Your task to perform on an android device: visit the assistant section in the google photos Image 0: 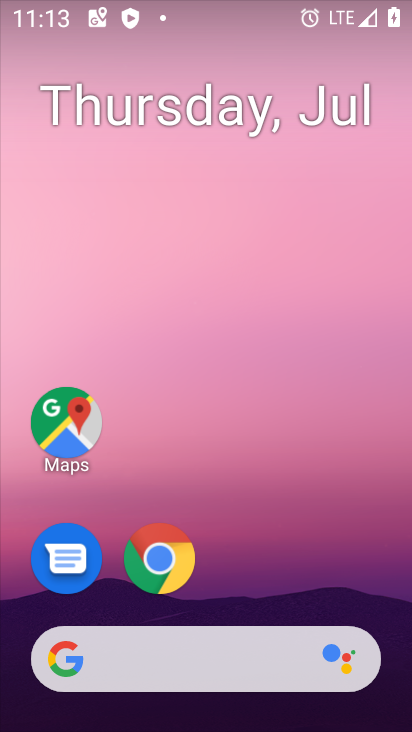
Step 0: drag from (345, 552) to (365, 76)
Your task to perform on an android device: visit the assistant section in the google photos Image 1: 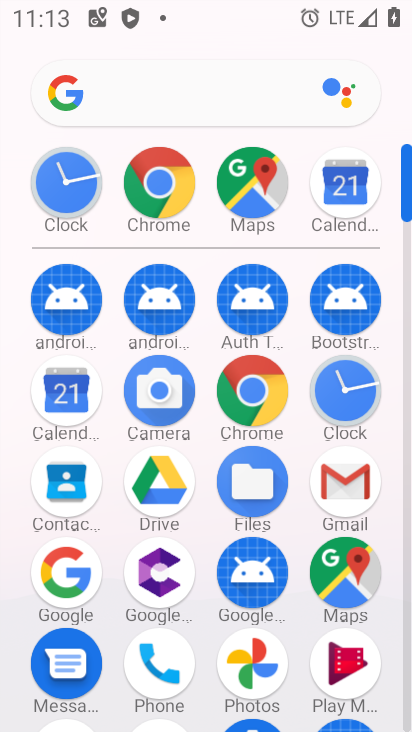
Step 1: click (250, 673)
Your task to perform on an android device: visit the assistant section in the google photos Image 2: 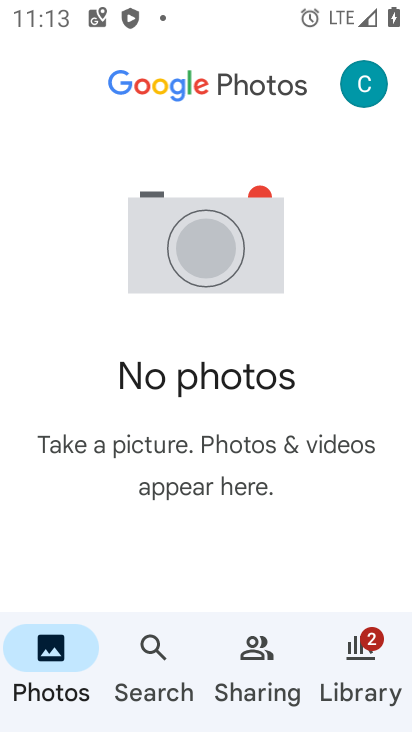
Step 2: click (364, 666)
Your task to perform on an android device: visit the assistant section in the google photos Image 3: 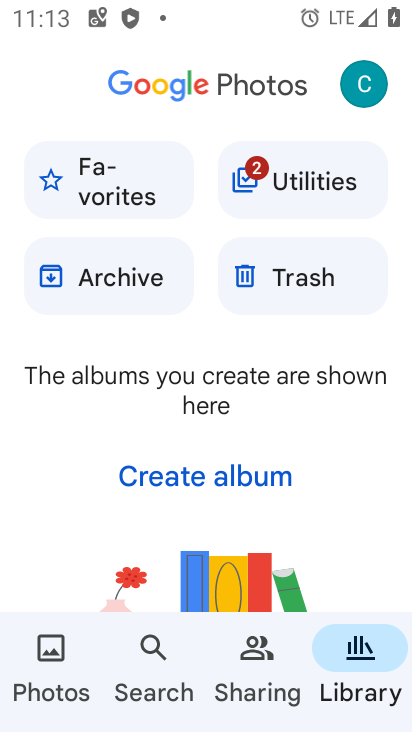
Step 3: task complete